Your task to perform on an android device: allow cookies in the chrome app Image 0: 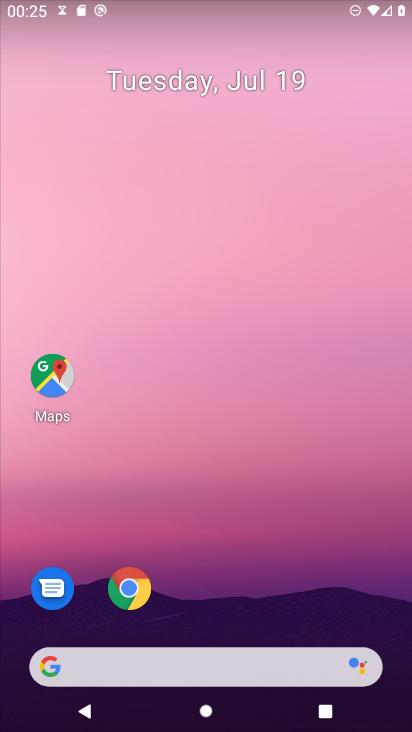
Step 0: press home button
Your task to perform on an android device: allow cookies in the chrome app Image 1: 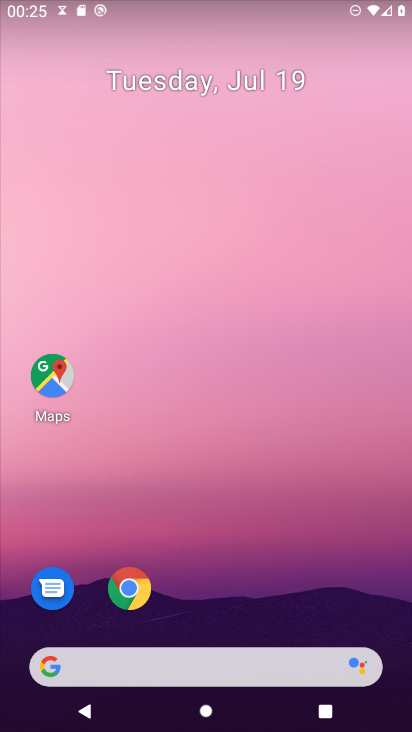
Step 1: click (142, 589)
Your task to perform on an android device: allow cookies in the chrome app Image 2: 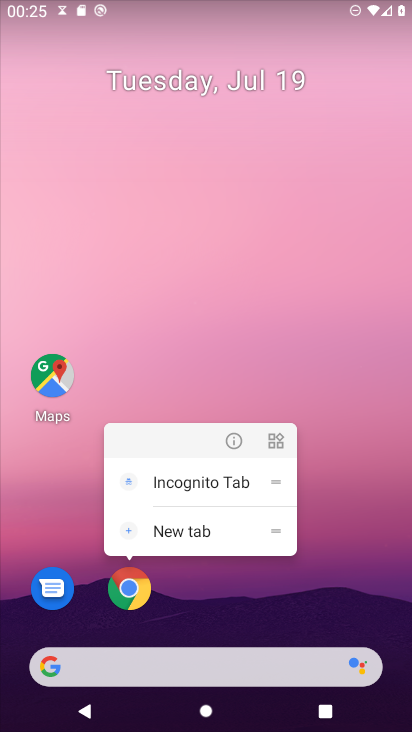
Step 2: click (125, 586)
Your task to perform on an android device: allow cookies in the chrome app Image 3: 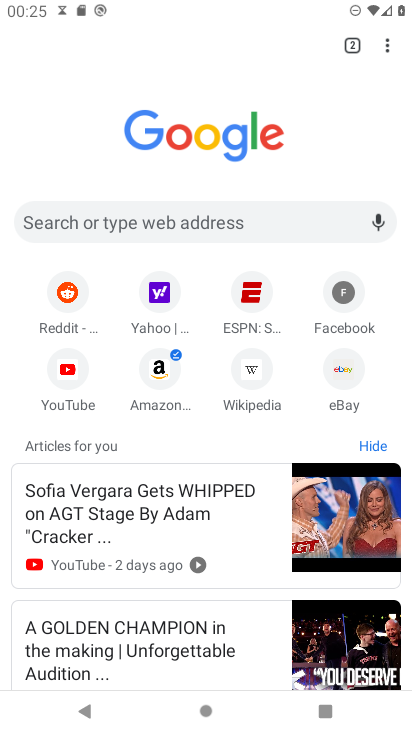
Step 3: click (388, 40)
Your task to perform on an android device: allow cookies in the chrome app Image 4: 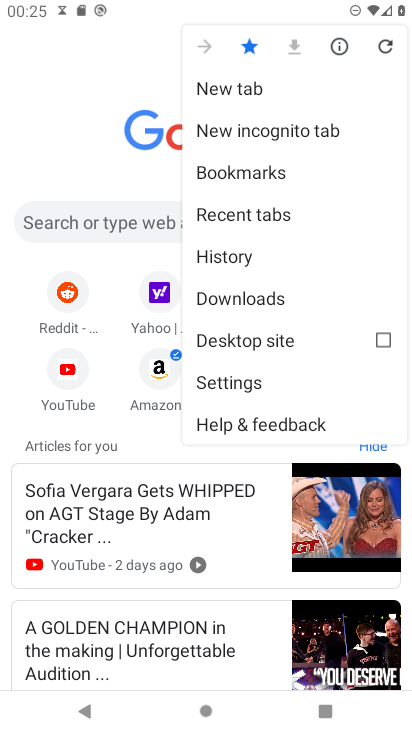
Step 4: click (247, 386)
Your task to perform on an android device: allow cookies in the chrome app Image 5: 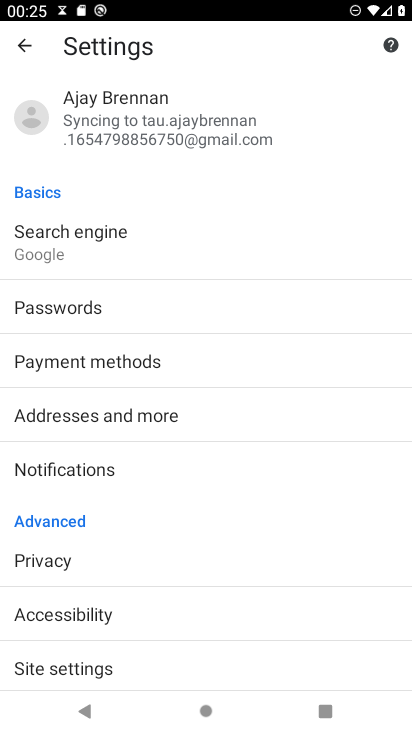
Step 5: drag from (143, 516) to (173, 262)
Your task to perform on an android device: allow cookies in the chrome app Image 6: 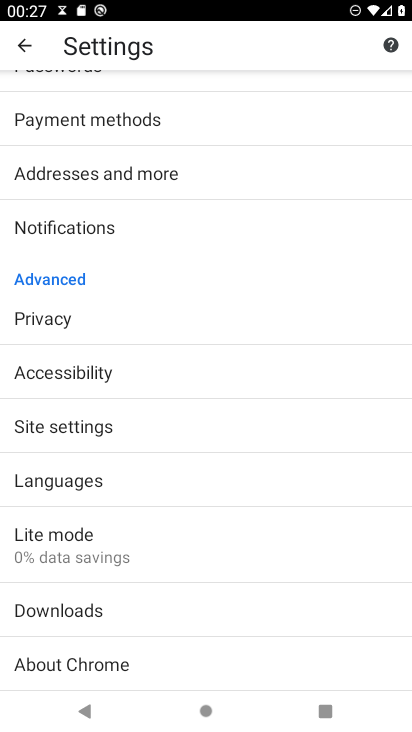
Step 6: click (53, 414)
Your task to perform on an android device: allow cookies in the chrome app Image 7: 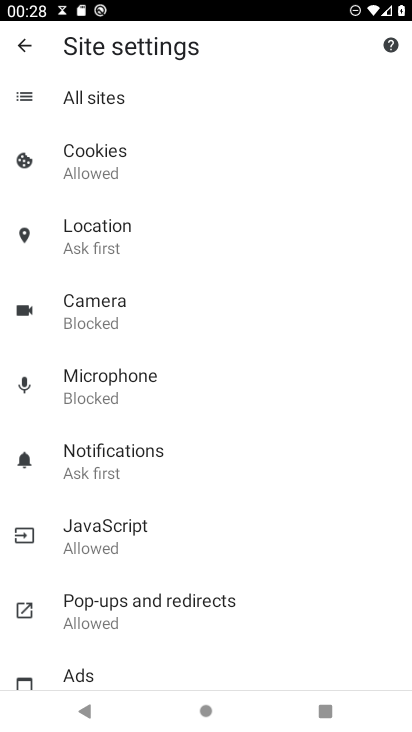
Step 7: click (112, 155)
Your task to perform on an android device: allow cookies in the chrome app Image 8: 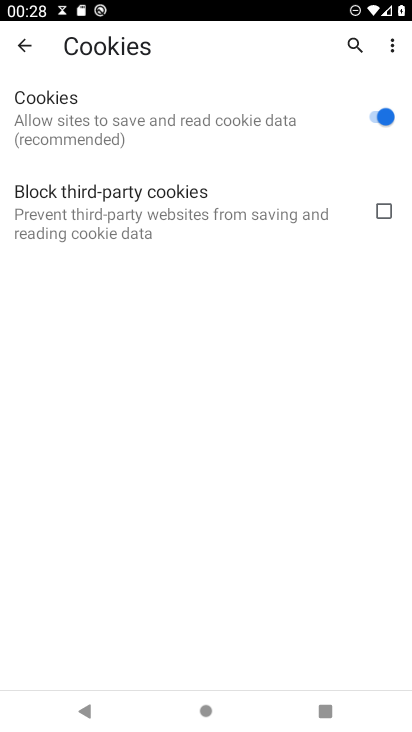
Step 8: task complete